Your task to perform on an android device: Open wifi settings Image 0: 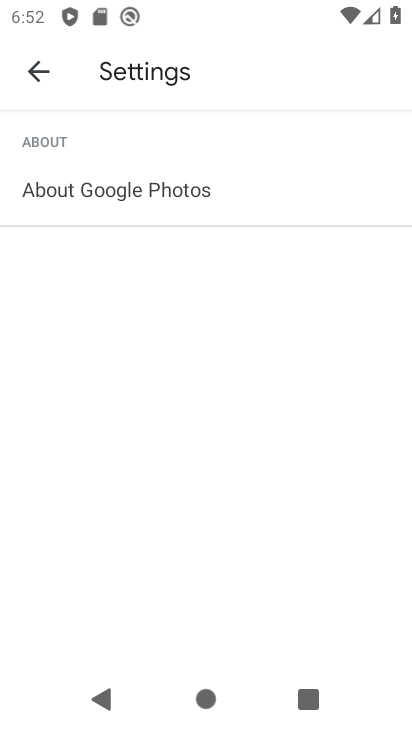
Step 0: press home button
Your task to perform on an android device: Open wifi settings Image 1: 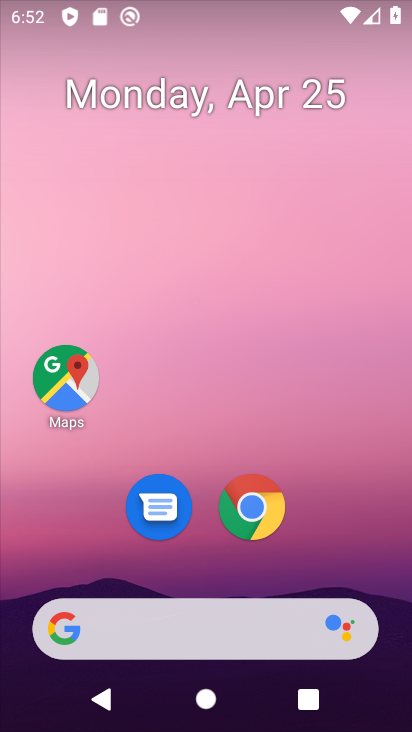
Step 1: drag from (287, 11) to (371, 539)
Your task to perform on an android device: Open wifi settings Image 2: 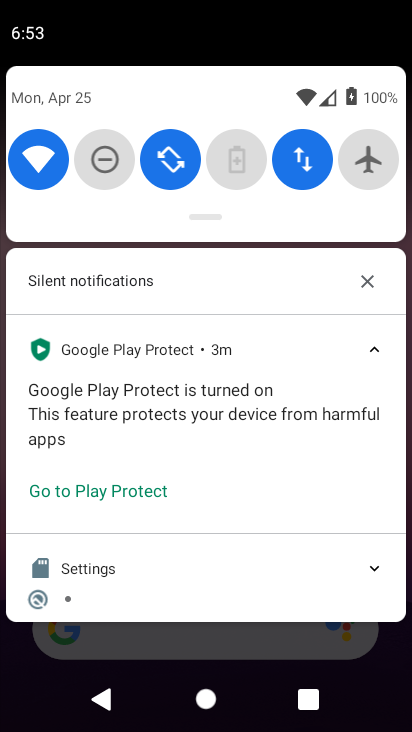
Step 2: click (46, 153)
Your task to perform on an android device: Open wifi settings Image 3: 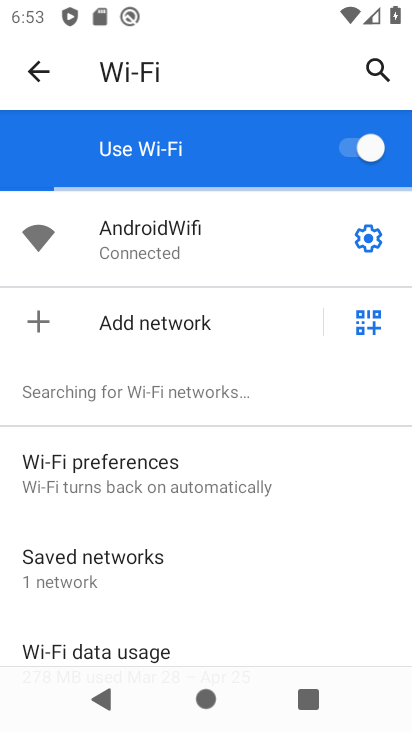
Step 3: task complete